Your task to perform on an android device: remove spam from my inbox in the gmail app Image 0: 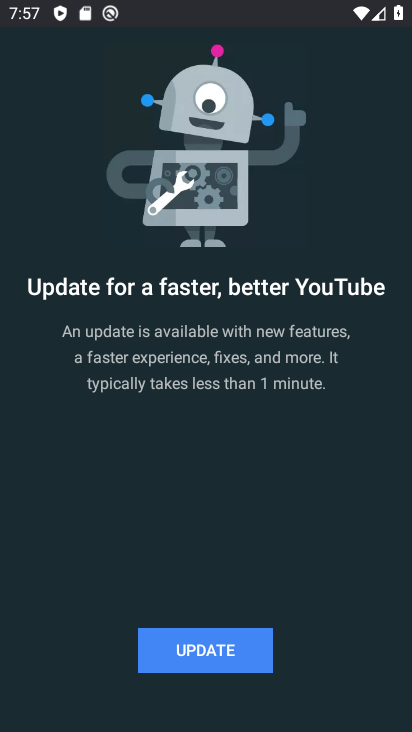
Step 0: press back button
Your task to perform on an android device: remove spam from my inbox in the gmail app Image 1: 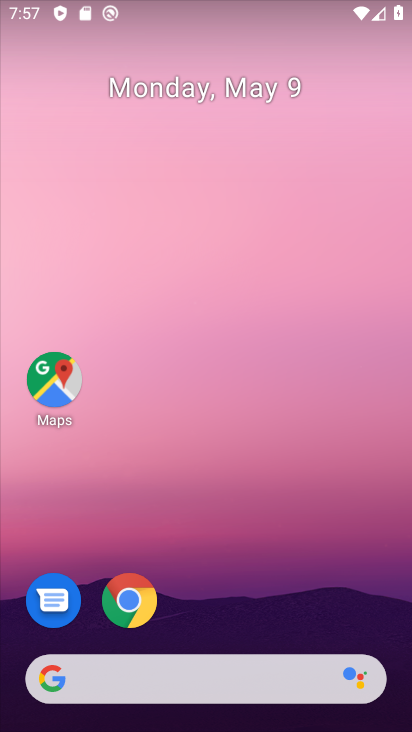
Step 1: drag from (300, 579) to (266, 57)
Your task to perform on an android device: remove spam from my inbox in the gmail app Image 2: 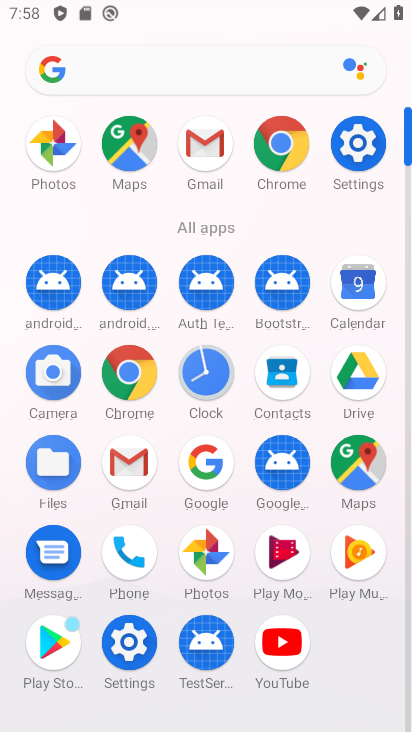
Step 2: click (204, 141)
Your task to perform on an android device: remove spam from my inbox in the gmail app Image 3: 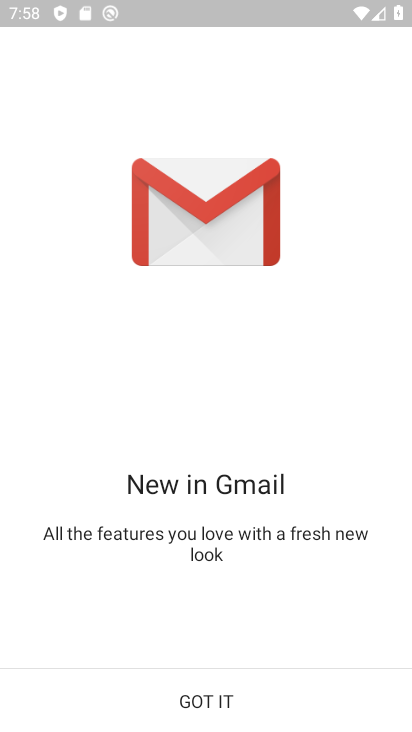
Step 3: click (208, 707)
Your task to perform on an android device: remove spam from my inbox in the gmail app Image 4: 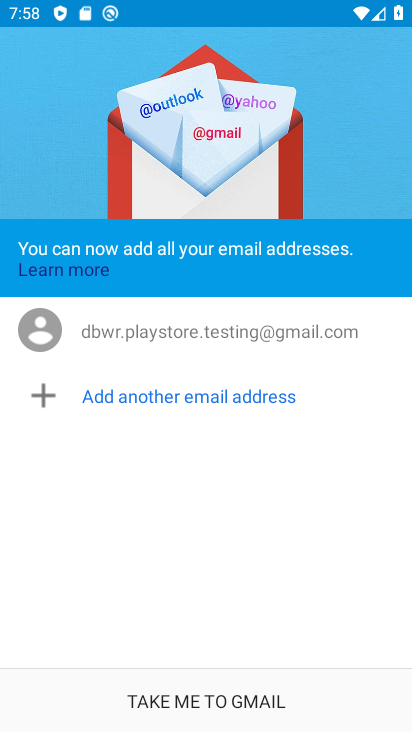
Step 4: click (208, 704)
Your task to perform on an android device: remove spam from my inbox in the gmail app Image 5: 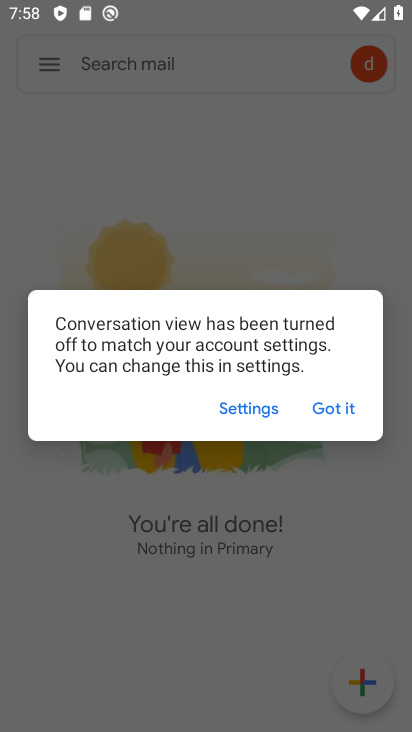
Step 5: click (323, 415)
Your task to perform on an android device: remove spam from my inbox in the gmail app Image 6: 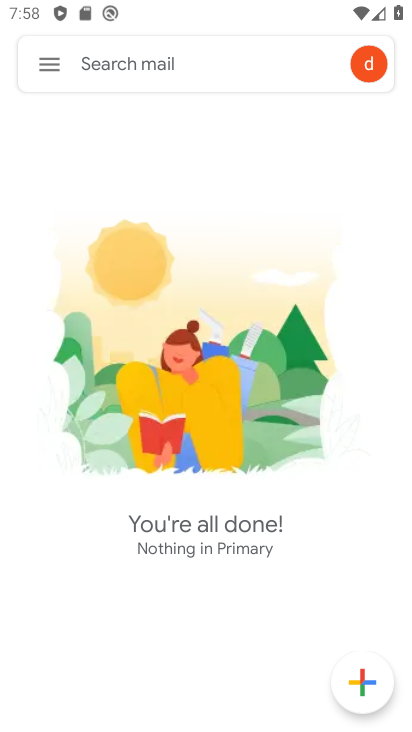
Step 6: click (44, 47)
Your task to perform on an android device: remove spam from my inbox in the gmail app Image 7: 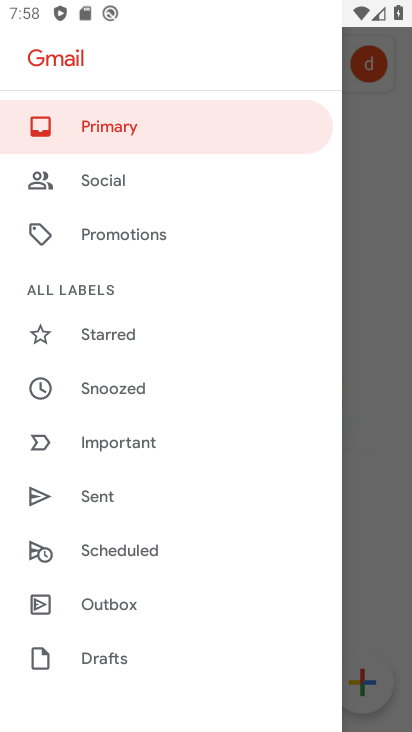
Step 7: drag from (175, 623) to (175, 274)
Your task to perform on an android device: remove spam from my inbox in the gmail app Image 8: 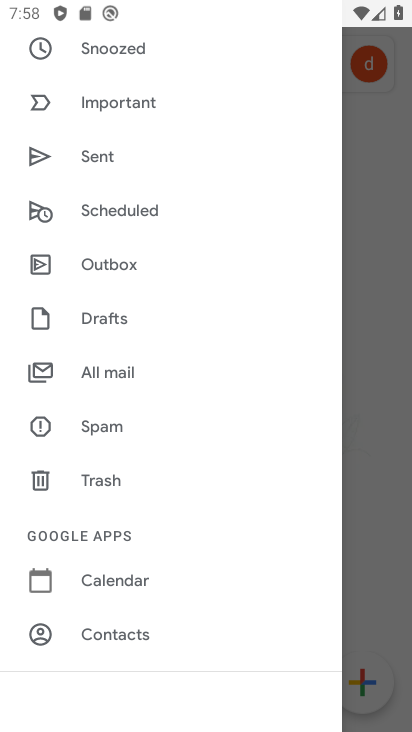
Step 8: click (139, 418)
Your task to perform on an android device: remove spam from my inbox in the gmail app Image 9: 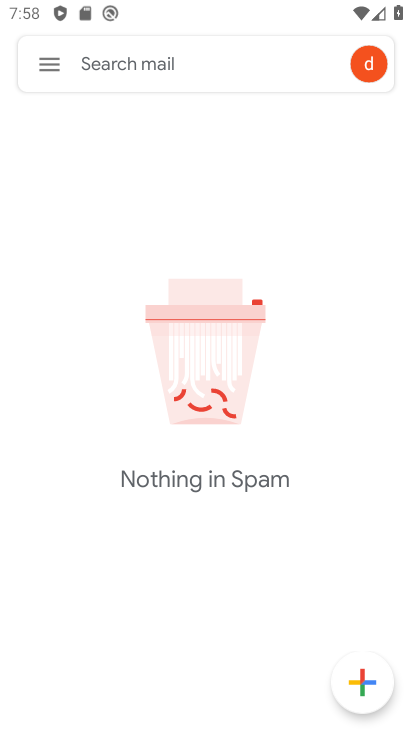
Step 9: task complete